Your task to perform on an android device: Open the Play Movies app and select the watchlist tab. Image 0: 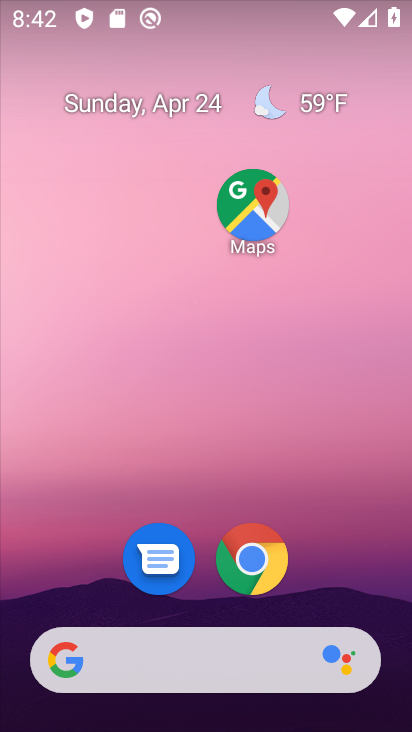
Step 0: drag from (19, 588) to (272, 127)
Your task to perform on an android device: Open the Play Movies app and select the watchlist tab. Image 1: 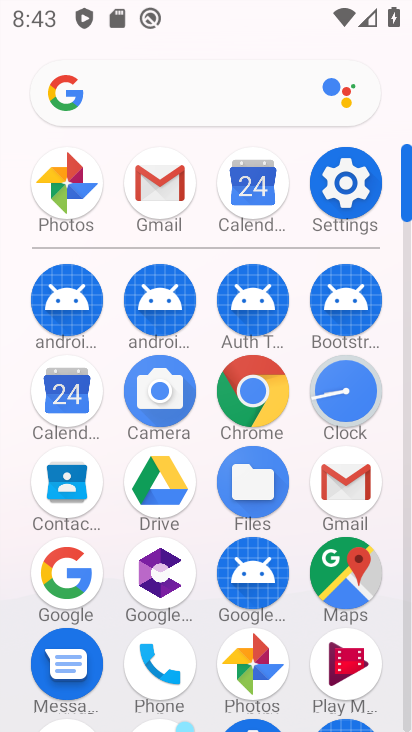
Step 1: click (351, 662)
Your task to perform on an android device: Open the Play Movies app and select the watchlist tab. Image 2: 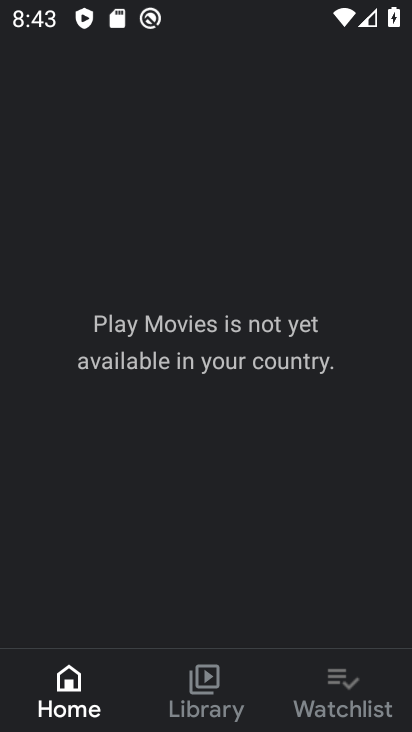
Step 2: click (348, 677)
Your task to perform on an android device: Open the Play Movies app and select the watchlist tab. Image 3: 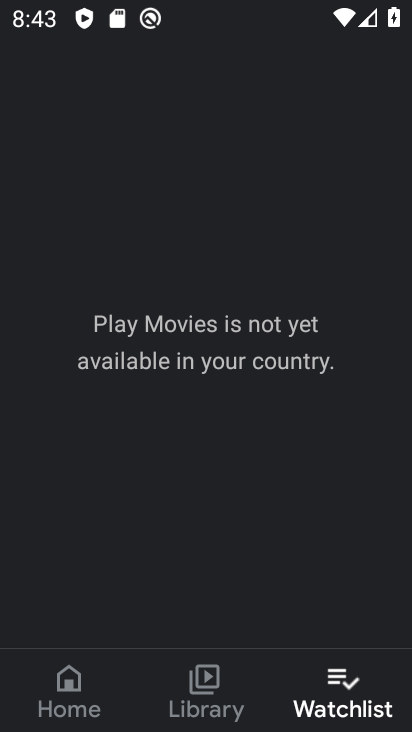
Step 3: task complete